Your task to perform on an android device: create a new album in the google photos Image 0: 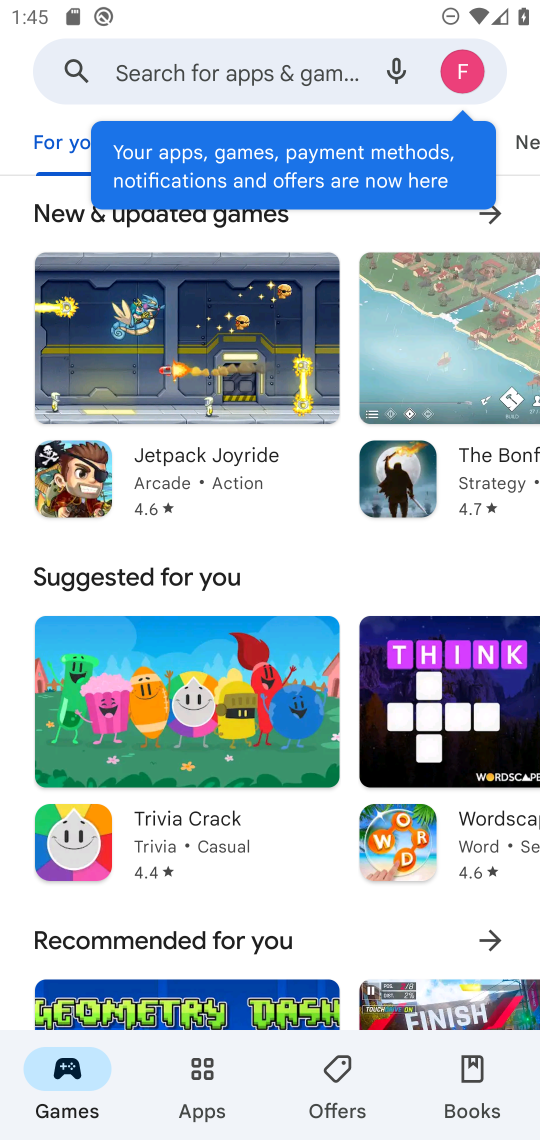
Step 0: press home button
Your task to perform on an android device: create a new album in the google photos Image 1: 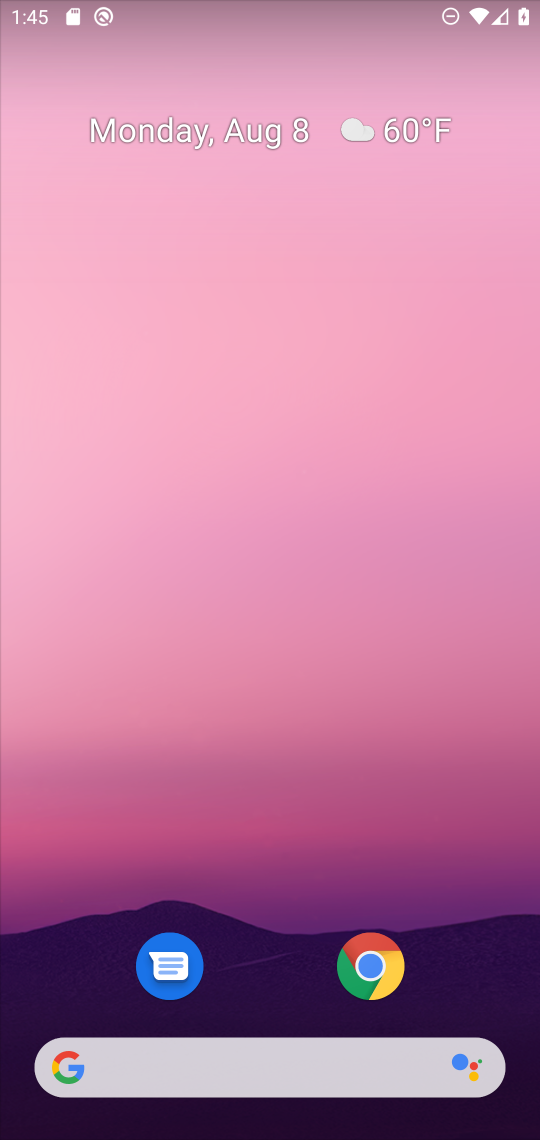
Step 1: drag from (484, 943) to (337, 189)
Your task to perform on an android device: create a new album in the google photos Image 2: 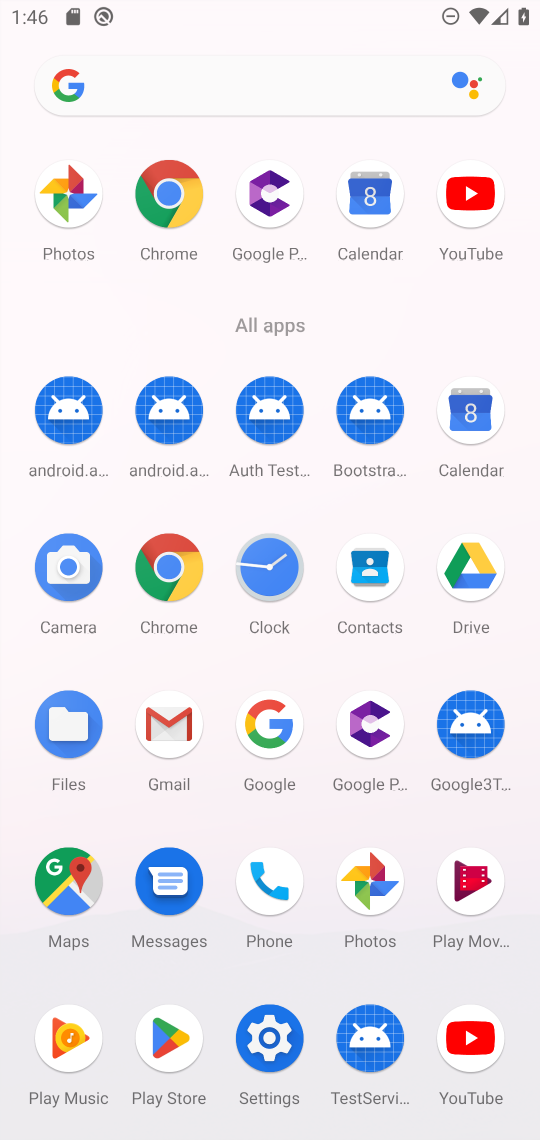
Step 2: click (381, 884)
Your task to perform on an android device: create a new album in the google photos Image 3: 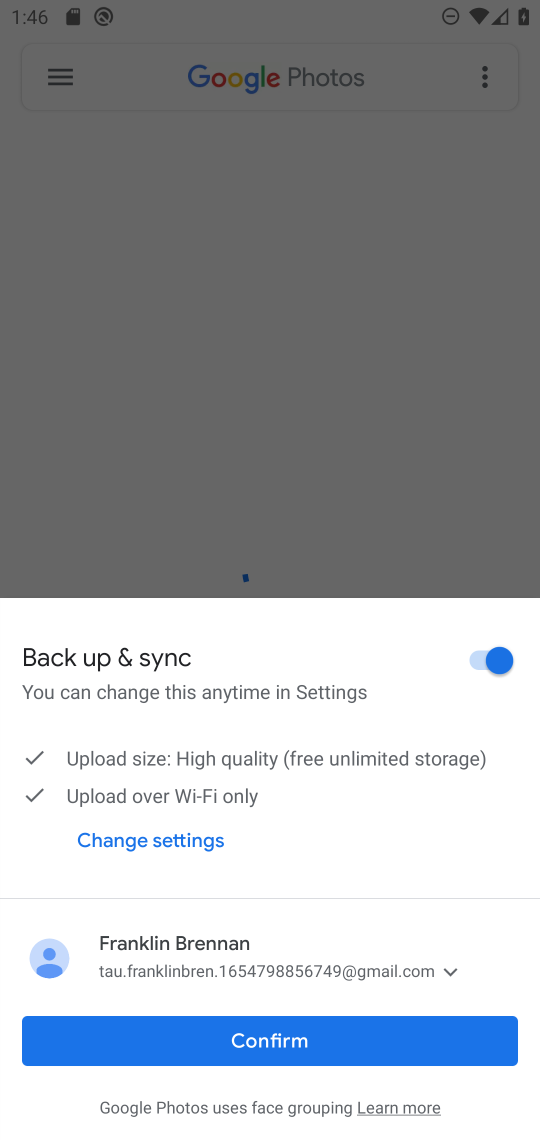
Step 3: click (362, 1026)
Your task to perform on an android device: create a new album in the google photos Image 4: 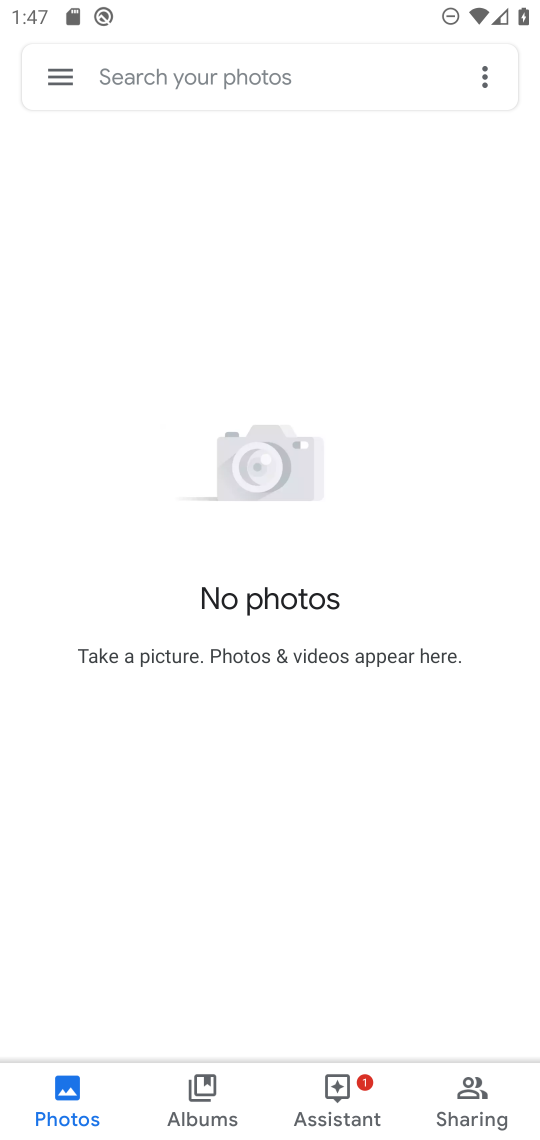
Step 4: task complete